Your task to perform on an android device: Go to accessibility settings Image 0: 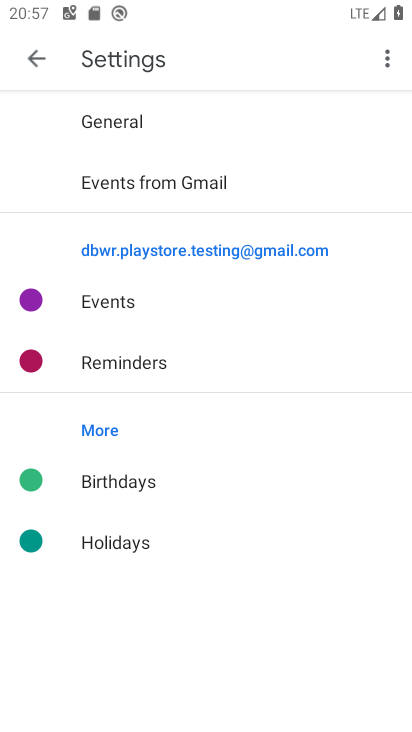
Step 0: press home button
Your task to perform on an android device: Go to accessibility settings Image 1: 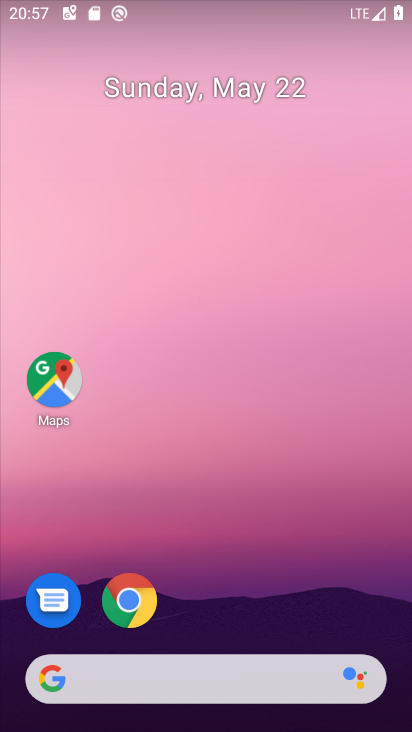
Step 1: drag from (280, 650) to (351, 226)
Your task to perform on an android device: Go to accessibility settings Image 2: 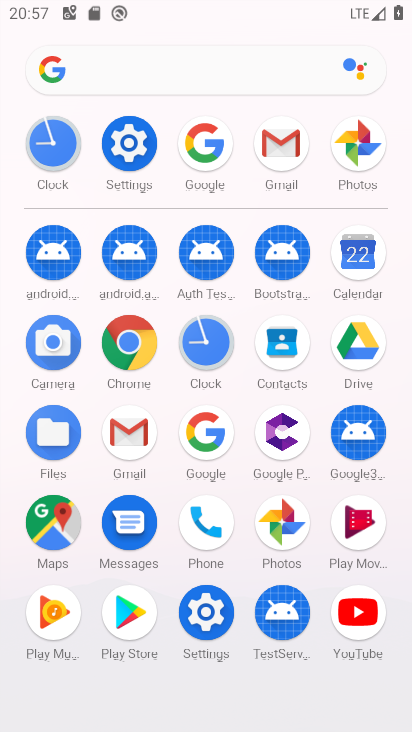
Step 2: click (129, 149)
Your task to perform on an android device: Go to accessibility settings Image 3: 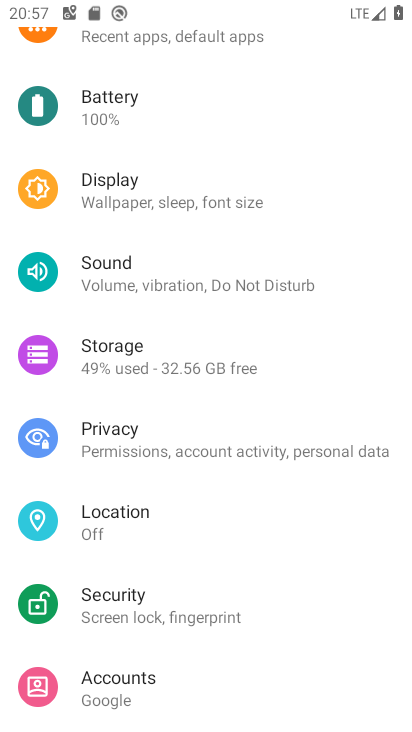
Step 3: drag from (161, 671) to (251, 223)
Your task to perform on an android device: Go to accessibility settings Image 4: 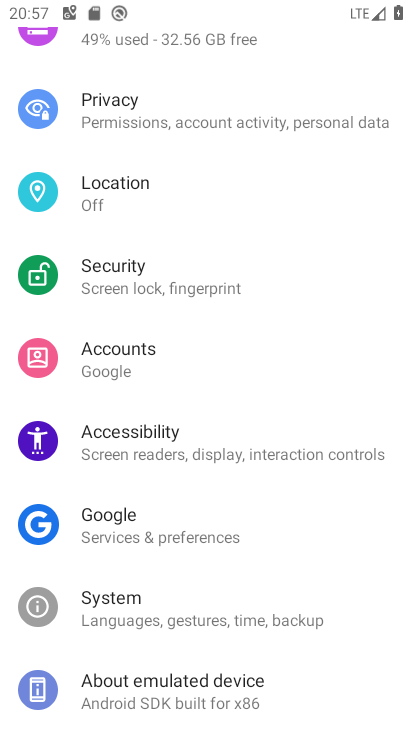
Step 4: click (114, 428)
Your task to perform on an android device: Go to accessibility settings Image 5: 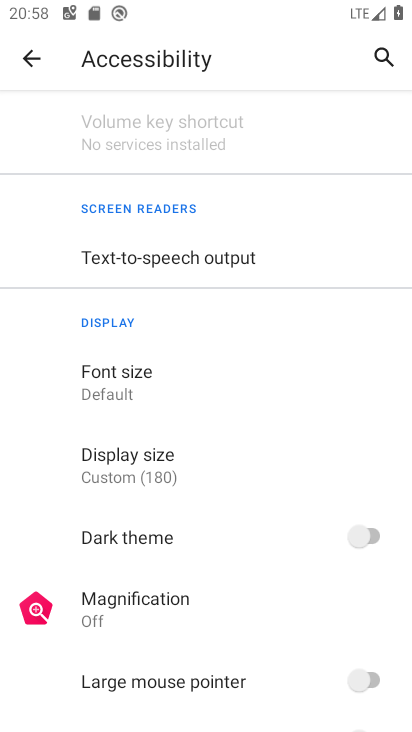
Step 5: task complete